Your task to perform on an android device: Go to wifi settings Image 0: 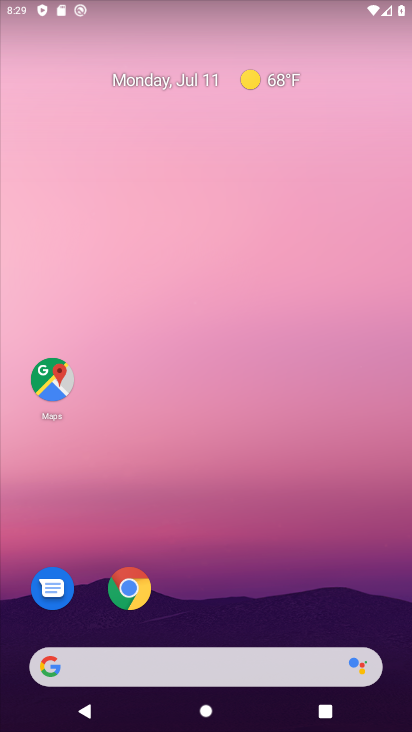
Step 0: drag from (157, 634) to (140, 83)
Your task to perform on an android device: Go to wifi settings Image 1: 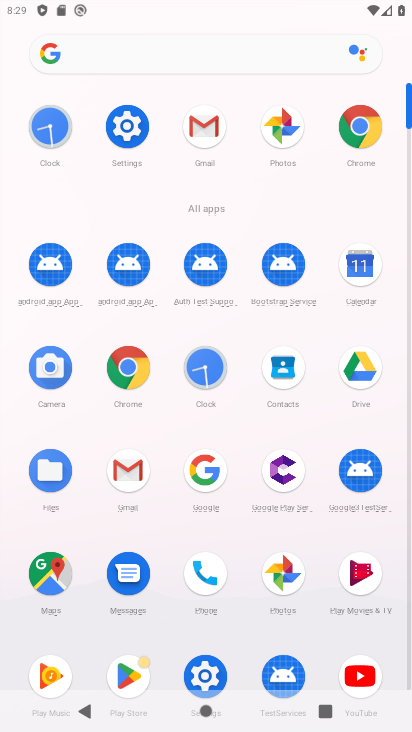
Step 1: click (138, 122)
Your task to perform on an android device: Go to wifi settings Image 2: 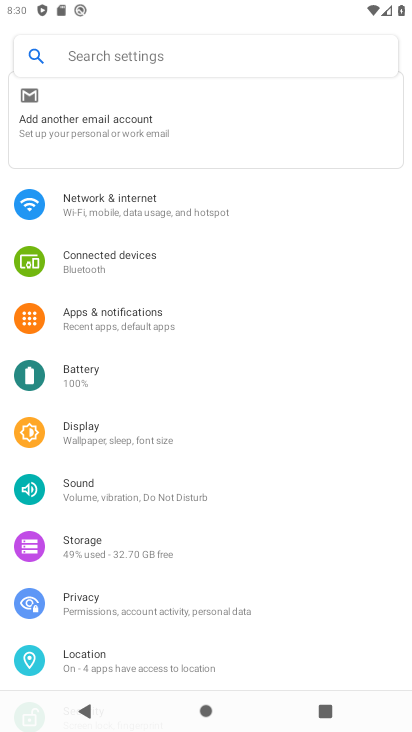
Step 2: click (112, 191)
Your task to perform on an android device: Go to wifi settings Image 3: 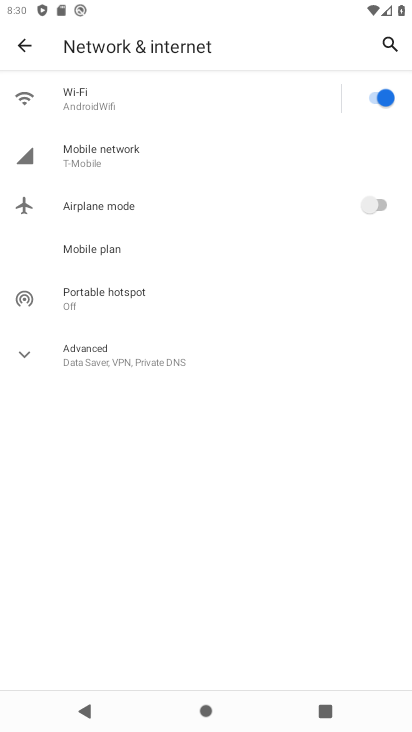
Step 3: click (104, 104)
Your task to perform on an android device: Go to wifi settings Image 4: 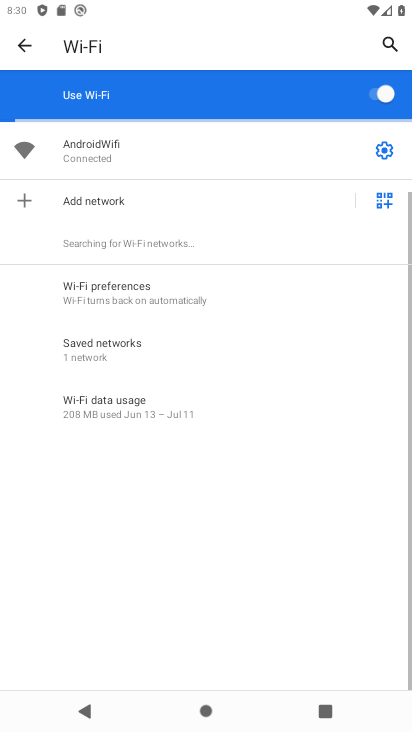
Step 4: task complete